Your task to perform on an android device: Go to wifi settings Image 0: 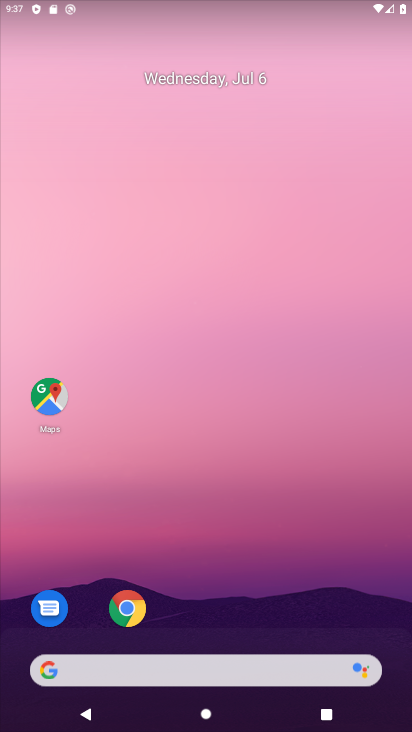
Step 0: drag from (200, 662) to (193, 67)
Your task to perform on an android device: Go to wifi settings Image 1: 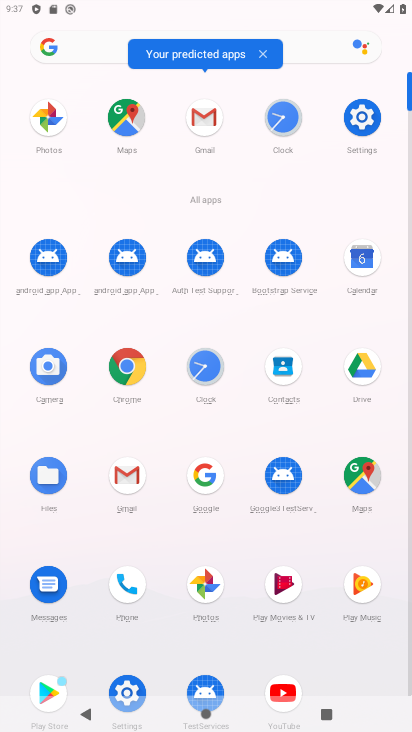
Step 1: click (368, 113)
Your task to perform on an android device: Go to wifi settings Image 2: 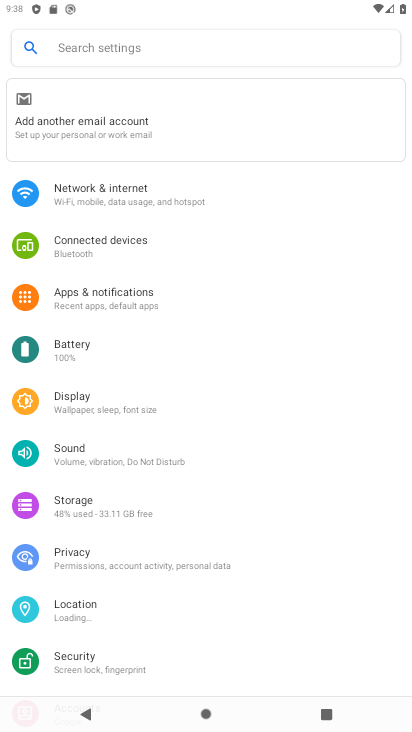
Step 2: click (106, 199)
Your task to perform on an android device: Go to wifi settings Image 3: 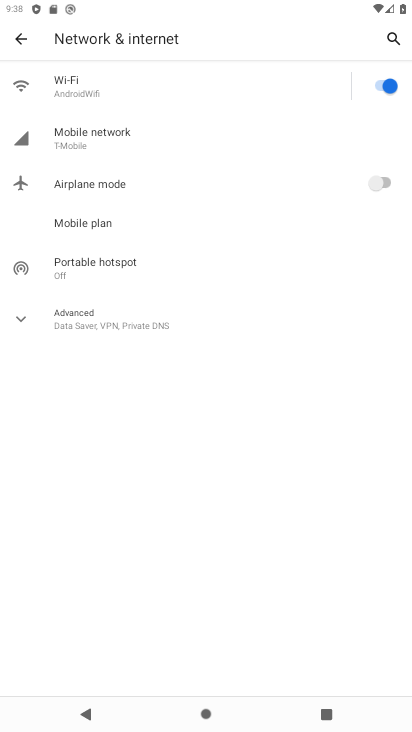
Step 3: click (121, 98)
Your task to perform on an android device: Go to wifi settings Image 4: 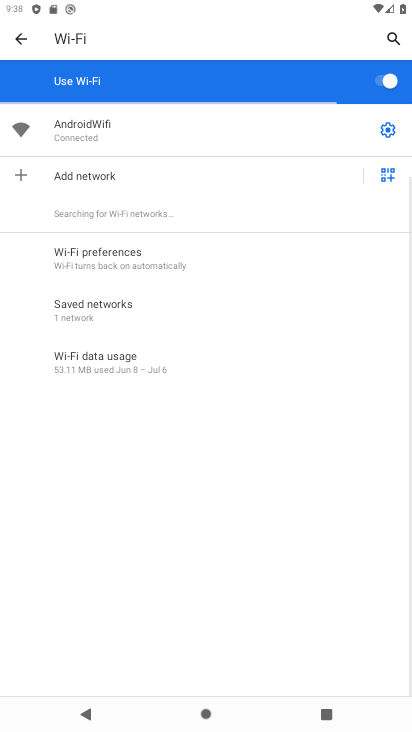
Step 4: click (391, 131)
Your task to perform on an android device: Go to wifi settings Image 5: 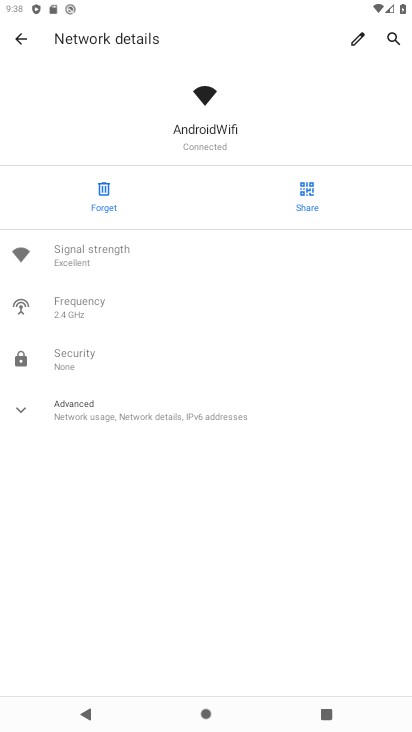
Step 5: click (204, 407)
Your task to perform on an android device: Go to wifi settings Image 6: 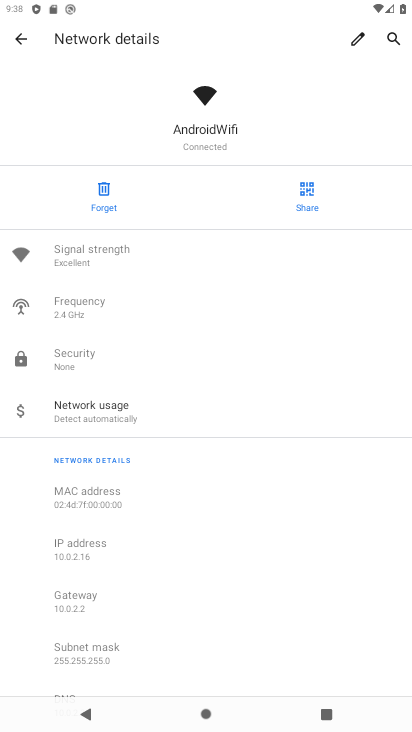
Step 6: task complete